Your task to perform on an android device: snooze an email in the gmail app Image 0: 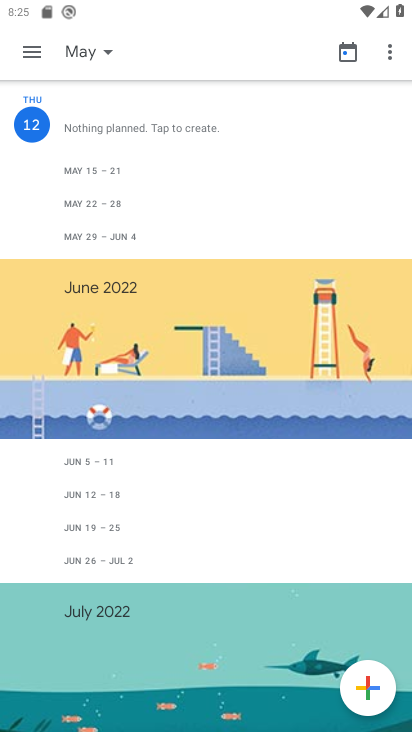
Step 0: press home button
Your task to perform on an android device: snooze an email in the gmail app Image 1: 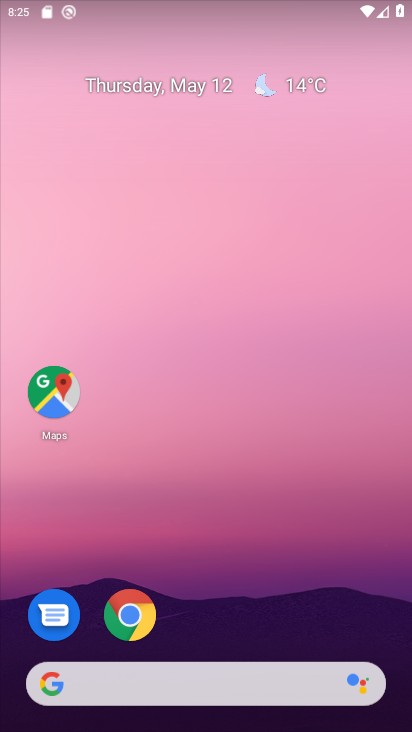
Step 1: drag from (217, 657) to (225, 5)
Your task to perform on an android device: snooze an email in the gmail app Image 2: 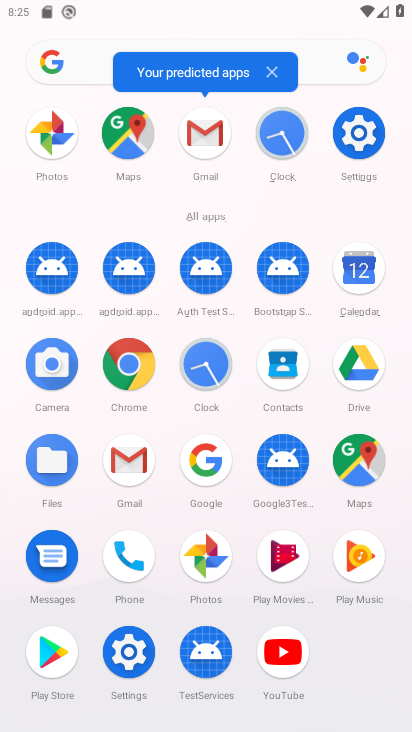
Step 2: click (134, 457)
Your task to perform on an android device: snooze an email in the gmail app Image 3: 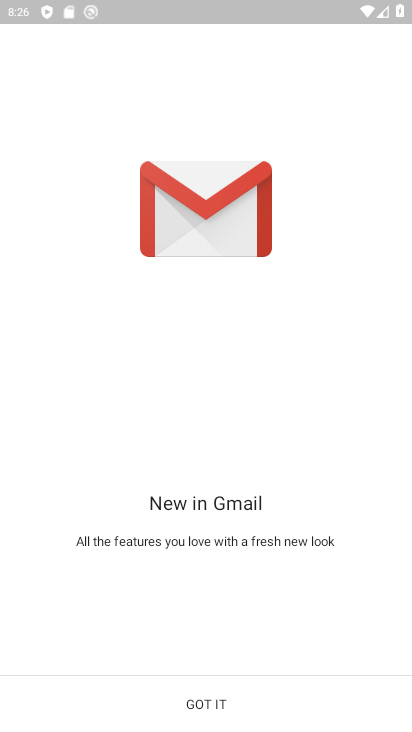
Step 3: click (160, 700)
Your task to perform on an android device: snooze an email in the gmail app Image 4: 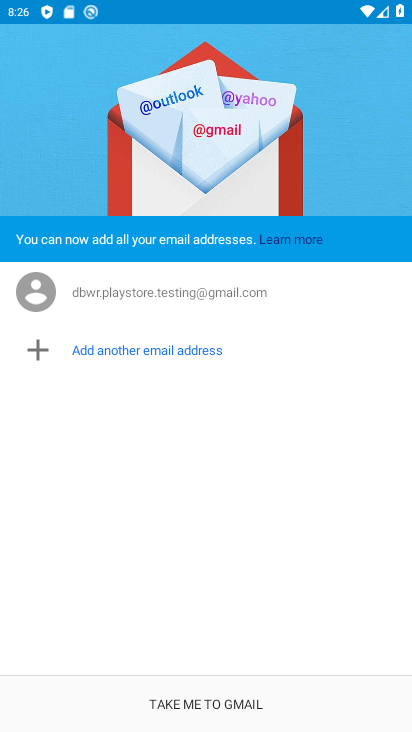
Step 4: click (165, 683)
Your task to perform on an android device: snooze an email in the gmail app Image 5: 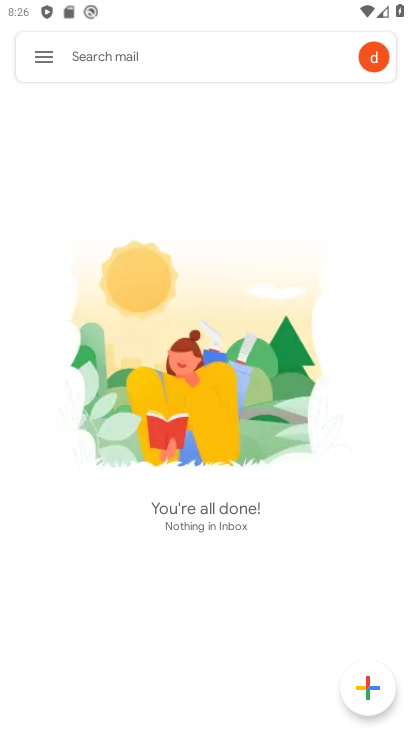
Step 5: click (37, 50)
Your task to perform on an android device: snooze an email in the gmail app Image 6: 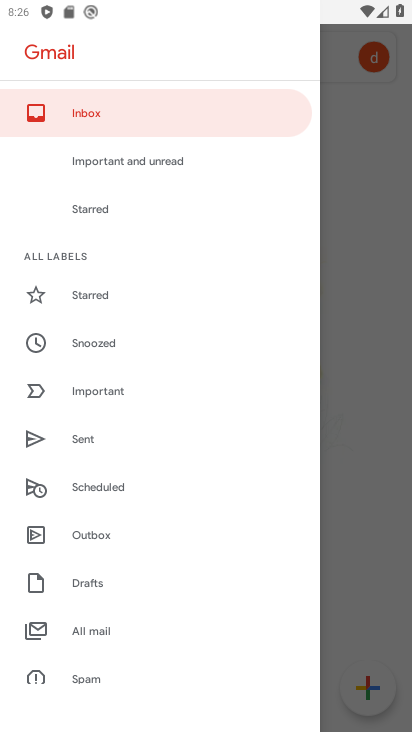
Step 6: task complete